Your task to perform on an android device: Open Wikipedia Image 0: 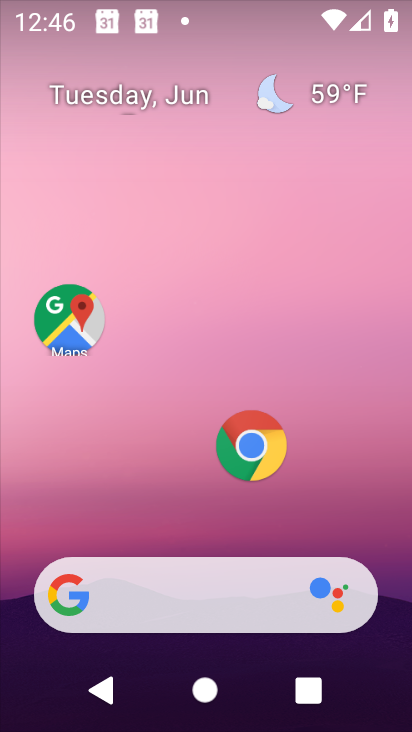
Step 0: click (255, 441)
Your task to perform on an android device: Open Wikipedia Image 1: 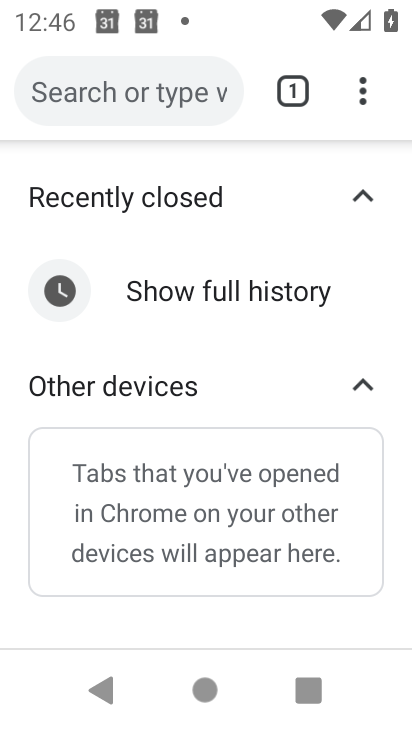
Step 1: click (288, 93)
Your task to perform on an android device: Open Wikipedia Image 2: 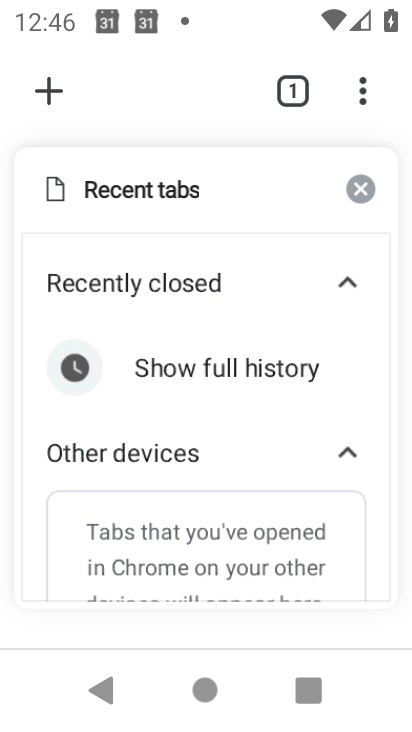
Step 2: click (59, 90)
Your task to perform on an android device: Open Wikipedia Image 3: 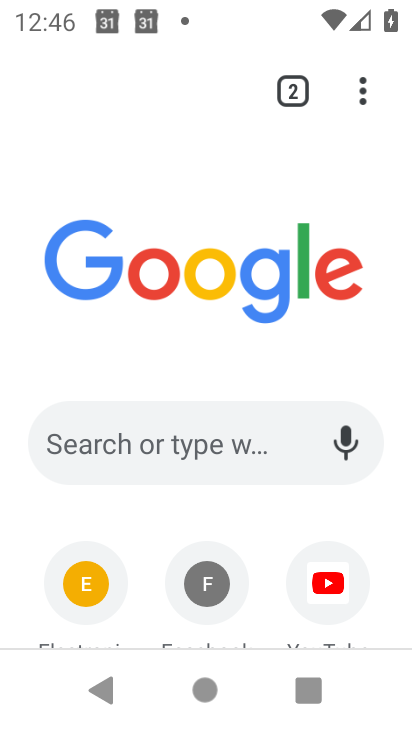
Step 3: drag from (144, 575) to (173, 227)
Your task to perform on an android device: Open Wikipedia Image 4: 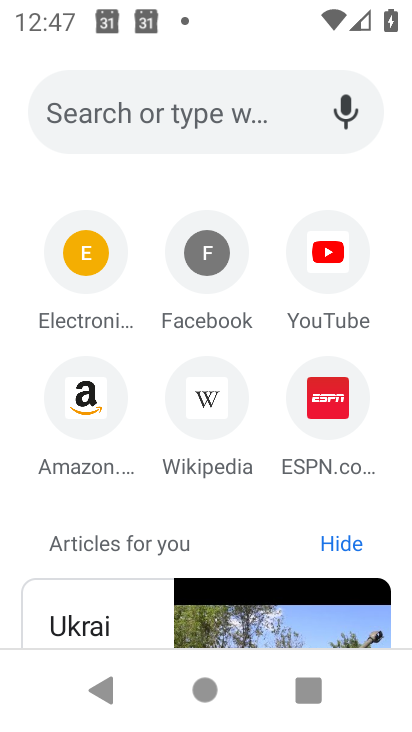
Step 4: click (201, 395)
Your task to perform on an android device: Open Wikipedia Image 5: 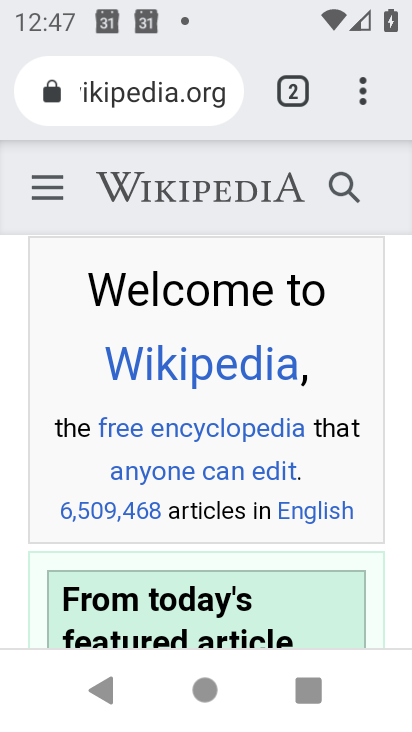
Step 5: task complete